Your task to perform on an android device: Add "acer predator" to the cart on costco.com, then select checkout. Image 0: 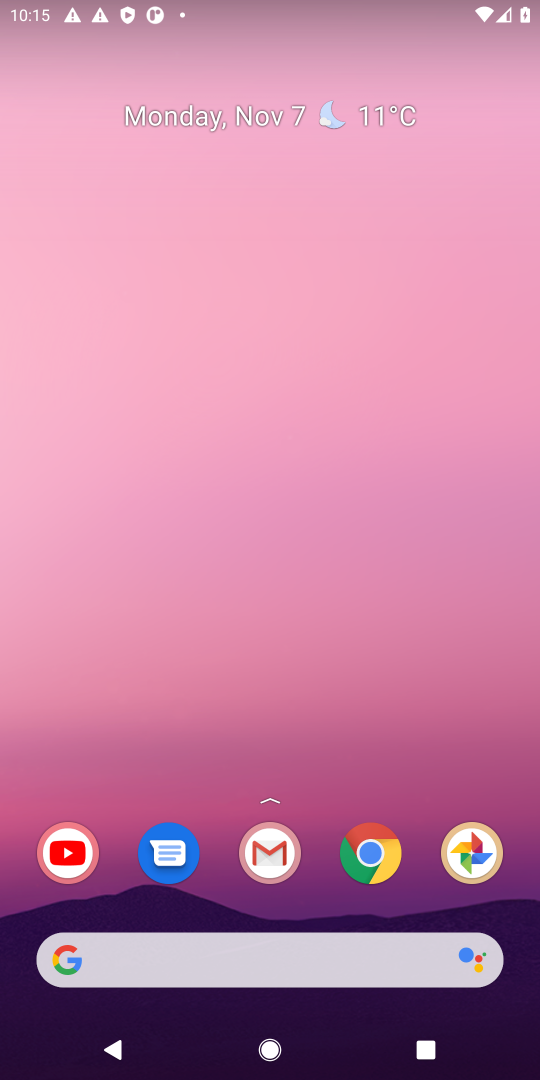
Step 0: click (272, 967)
Your task to perform on an android device: Add "acer predator" to the cart on costco.com, then select checkout. Image 1: 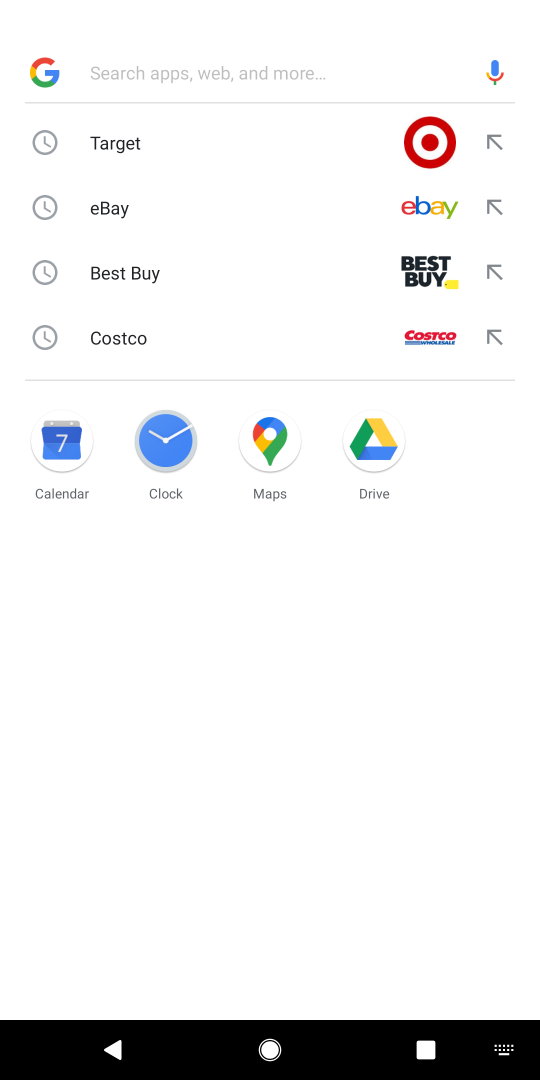
Step 1: click (186, 325)
Your task to perform on an android device: Add "acer predator" to the cart on costco.com, then select checkout. Image 2: 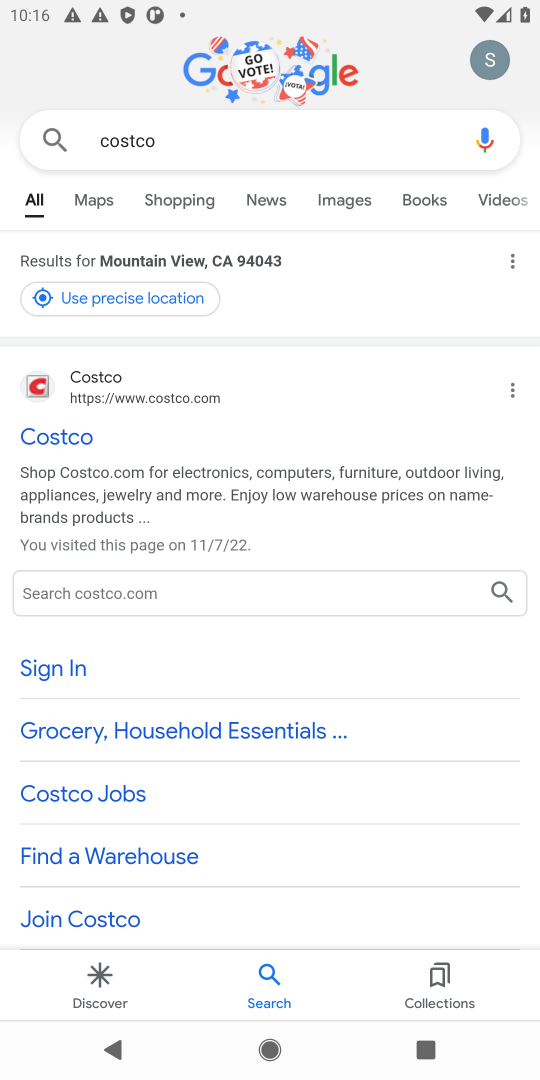
Step 2: click (97, 451)
Your task to perform on an android device: Add "acer predator" to the cart on costco.com, then select checkout. Image 3: 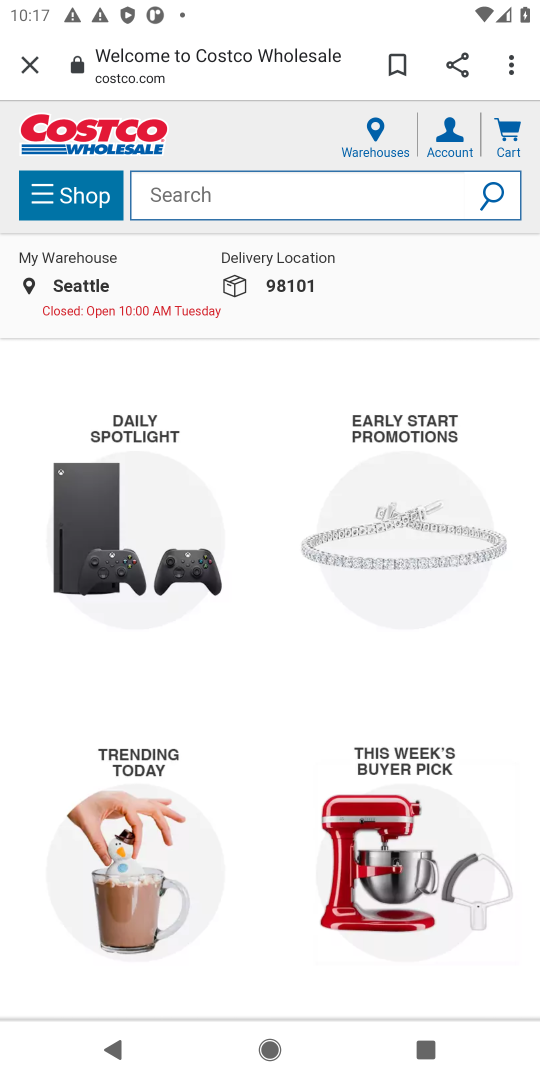
Step 3: click (284, 209)
Your task to perform on an android device: Add "acer predator" to the cart on costco.com, then select checkout. Image 4: 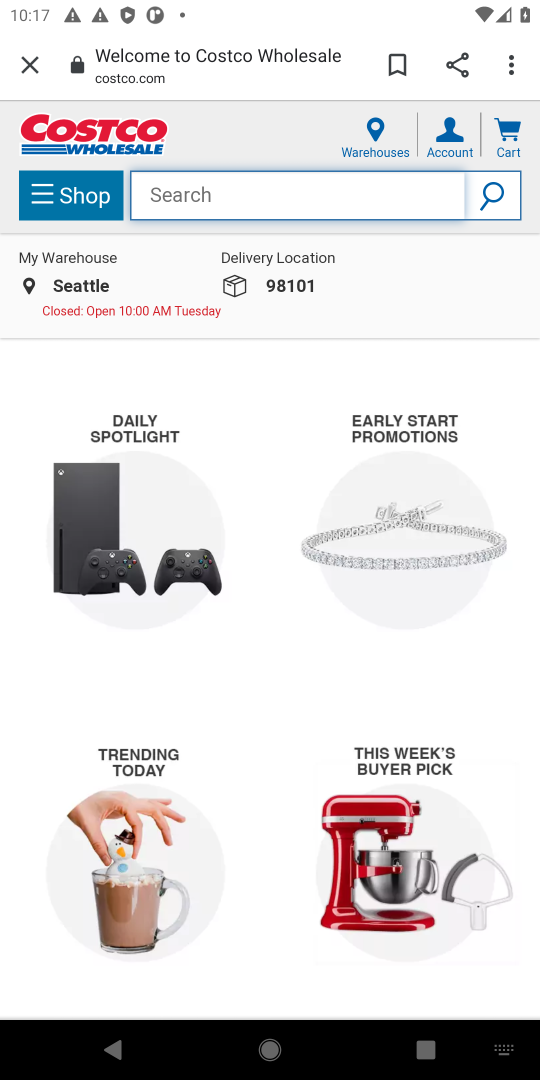
Step 4: type "acer predaror"
Your task to perform on an android device: Add "acer predator" to the cart on costco.com, then select checkout. Image 5: 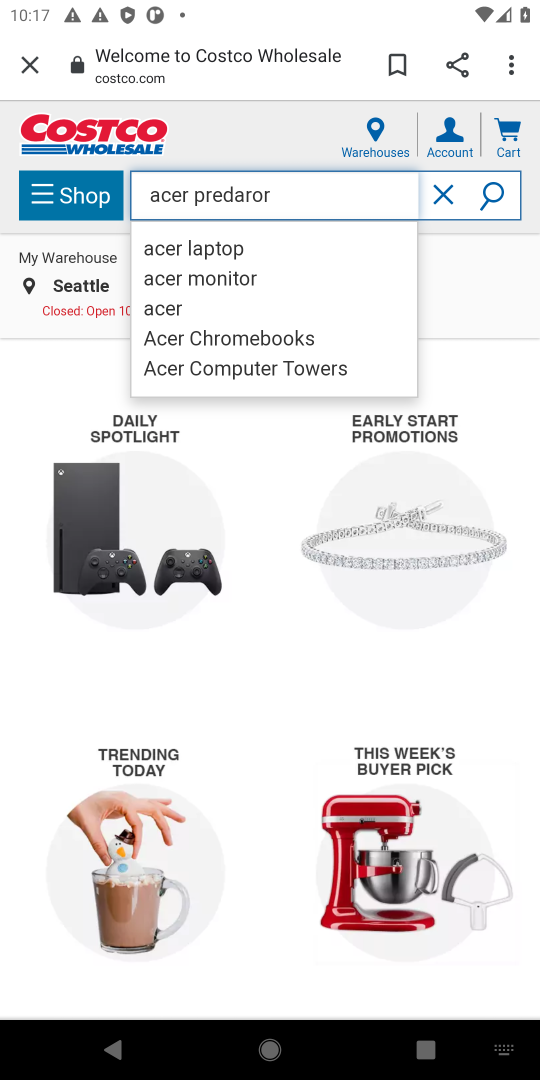
Step 5: click (209, 235)
Your task to perform on an android device: Add "acer predator" to the cart on costco.com, then select checkout. Image 6: 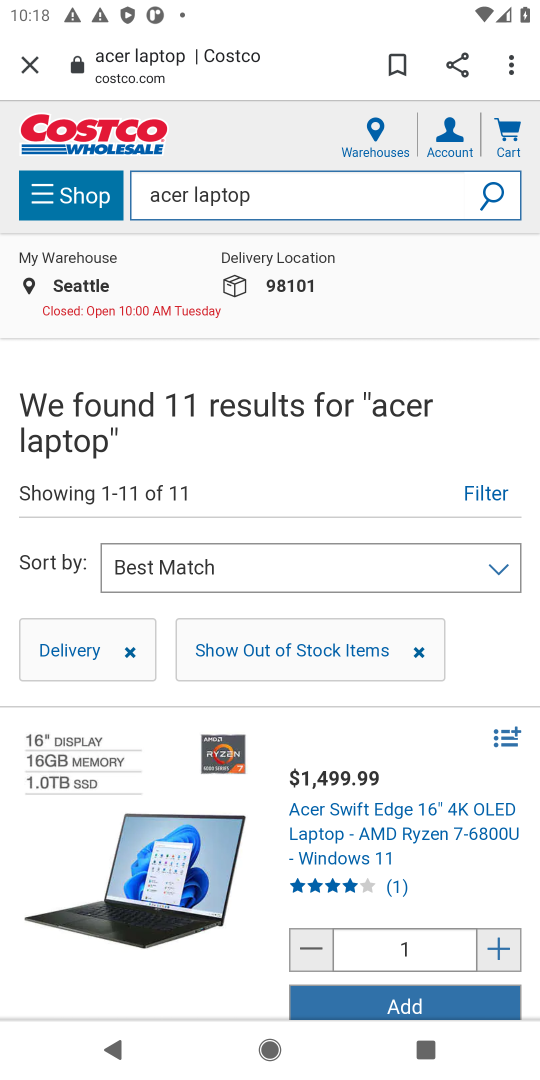
Step 6: task complete